Your task to perform on an android device: Go to privacy settings Image 0: 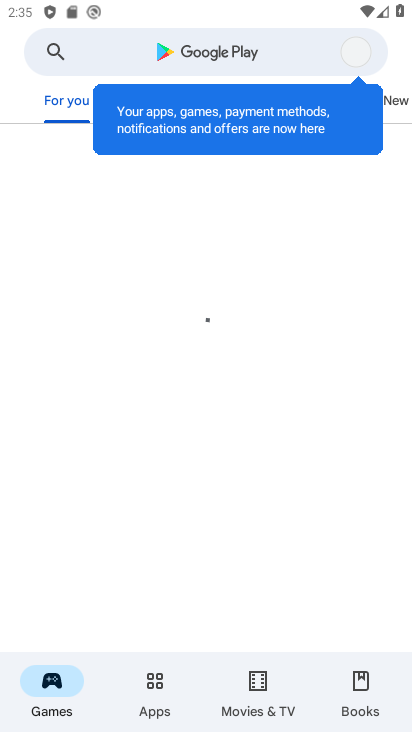
Step 0: press home button
Your task to perform on an android device: Go to privacy settings Image 1: 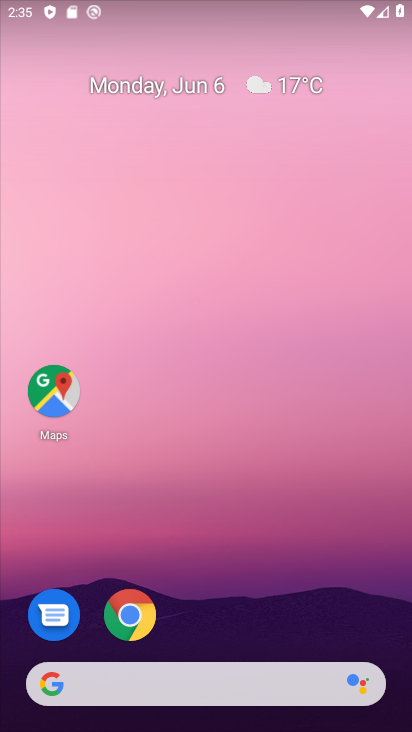
Step 1: drag from (231, 624) to (214, 100)
Your task to perform on an android device: Go to privacy settings Image 2: 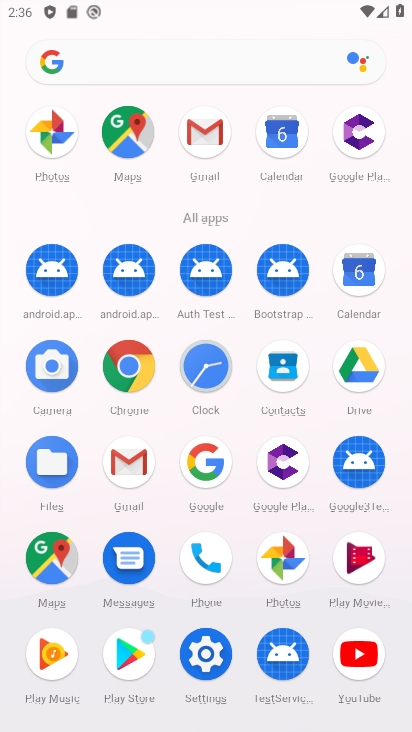
Step 2: click (220, 656)
Your task to perform on an android device: Go to privacy settings Image 3: 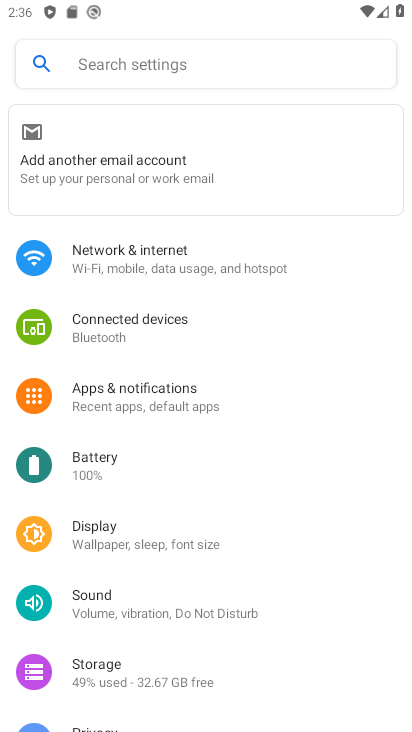
Step 3: drag from (220, 656) to (180, 304)
Your task to perform on an android device: Go to privacy settings Image 4: 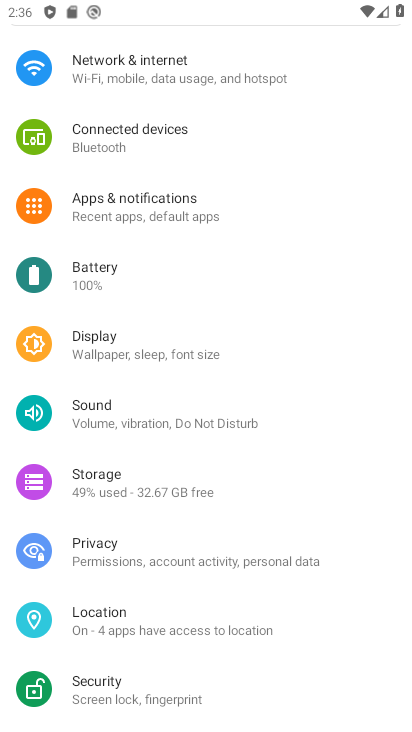
Step 4: click (184, 551)
Your task to perform on an android device: Go to privacy settings Image 5: 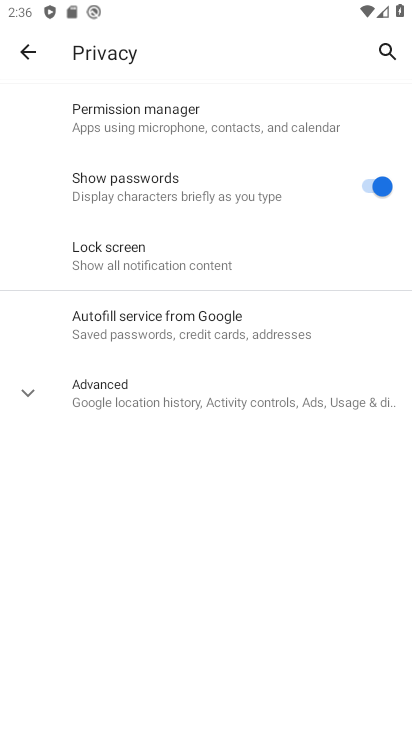
Step 5: task complete